Your task to perform on an android device: Open Google Maps and go to "Timeline" Image 0: 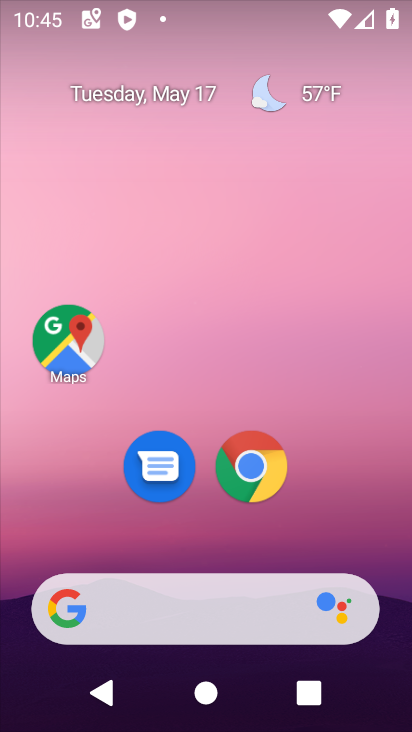
Step 0: drag from (214, 567) to (145, 91)
Your task to perform on an android device: Open Google Maps and go to "Timeline" Image 1: 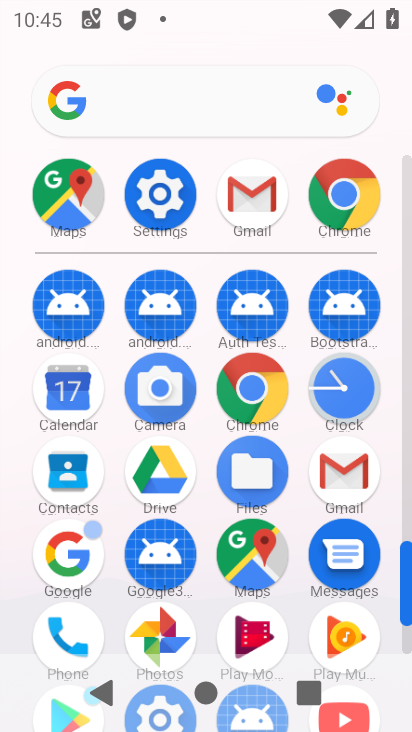
Step 1: click (270, 544)
Your task to perform on an android device: Open Google Maps and go to "Timeline" Image 2: 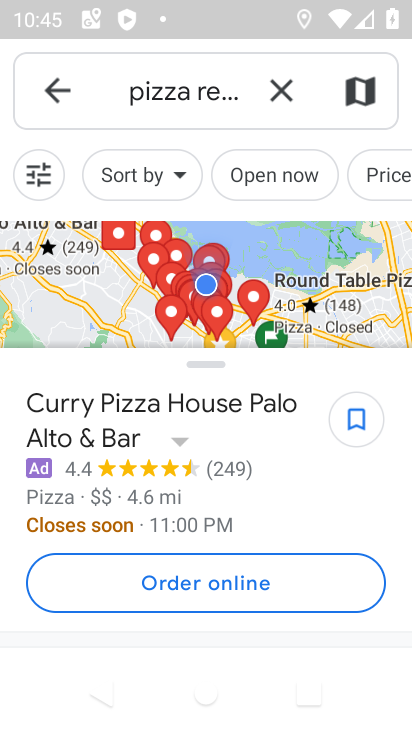
Step 2: click (37, 88)
Your task to perform on an android device: Open Google Maps and go to "Timeline" Image 3: 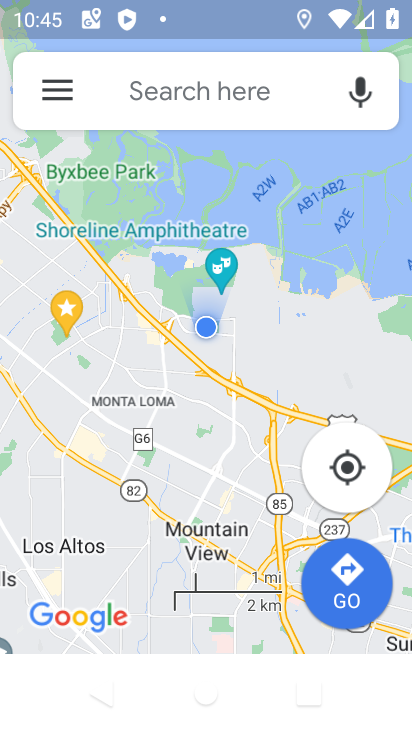
Step 3: click (50, 110)
Your task to perform on an android device: Open Google Maps and go to "Timeline" Image 4: 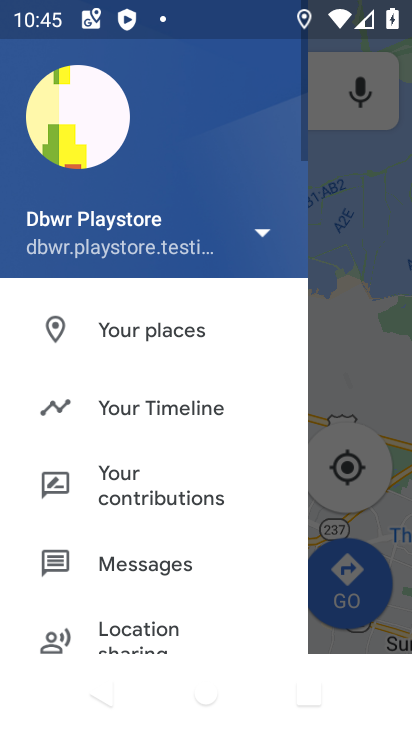
Step 4: click (134, 396)
Your task to perform on an android device: Open Google Maps and go to "Timeline" Image 5: 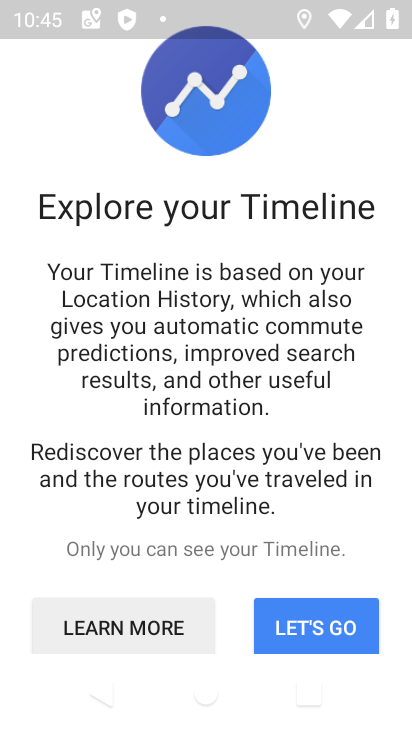
Step 5: click (325, 619)
Your task to perform on an android device: Open Google Maps and go to "Timeline" Image 6: 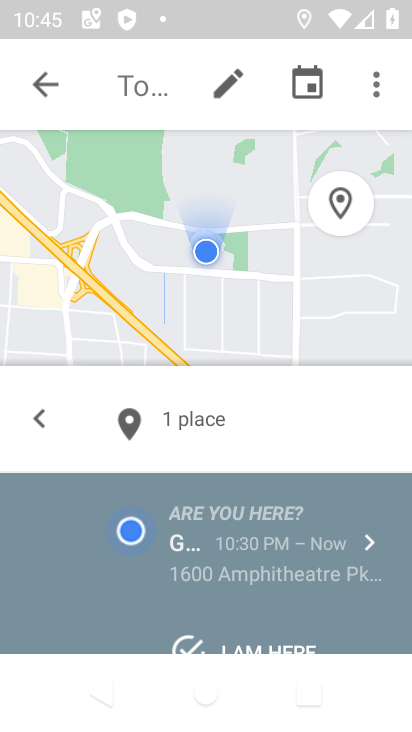
Step 6: task complete